Your task to perform on an android device: Go to sound settings Image 0: 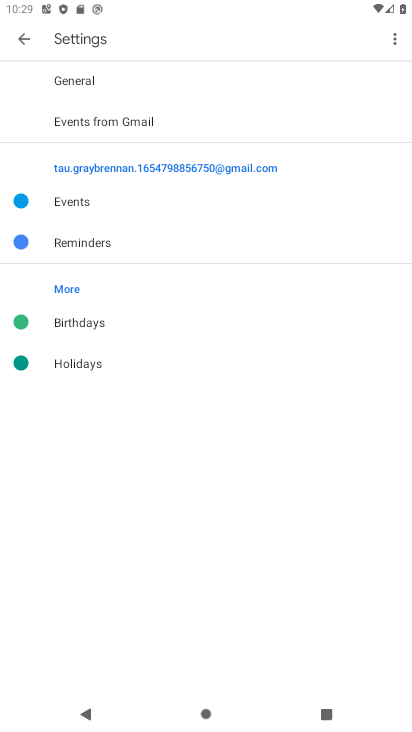
Step 0: press home button
Your task to perform on an android device: Go to sound settings Image 1: 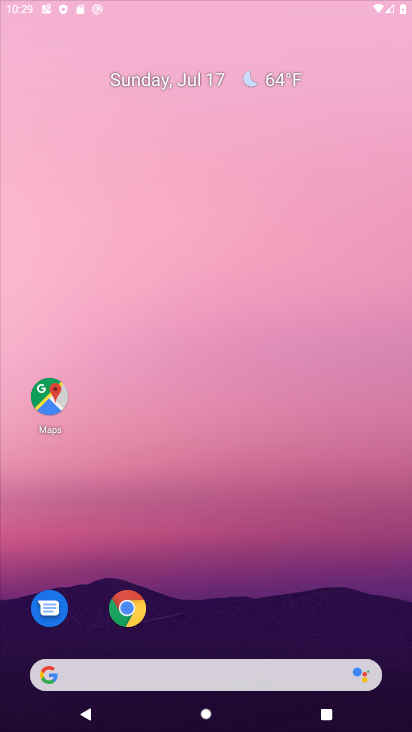
Step 1: drag from (387, 659) to (250, 48)
Your task to perform on an android device: Go to sound settings Image 2: 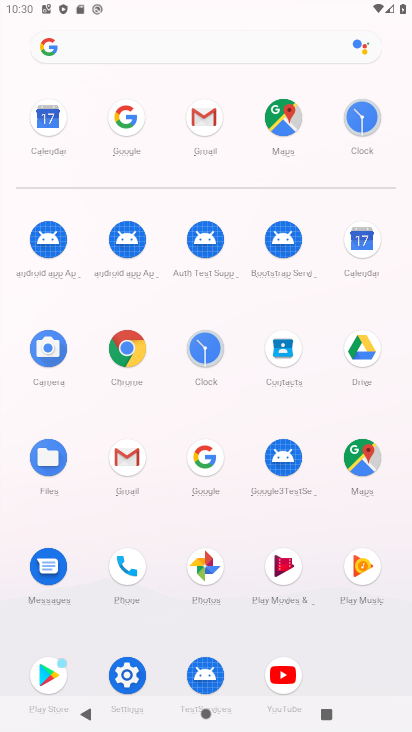
Step 2: click (136, 665)
Your task to perform on an android device: Go to sound settings Image 3: 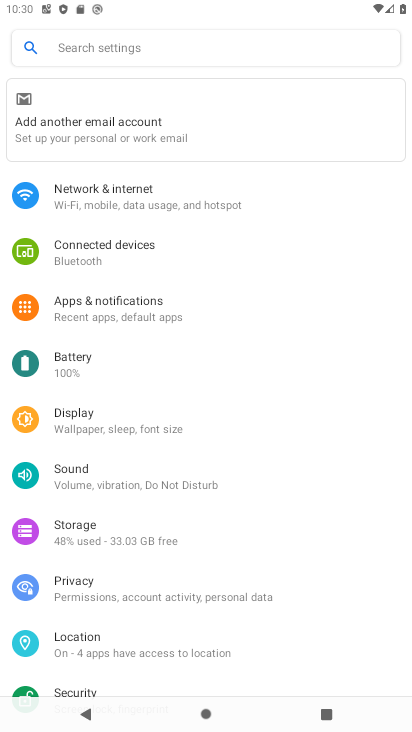
Step 3: click (68, 492)
Your task to perform on an android device: Go to sound settings Image 4: 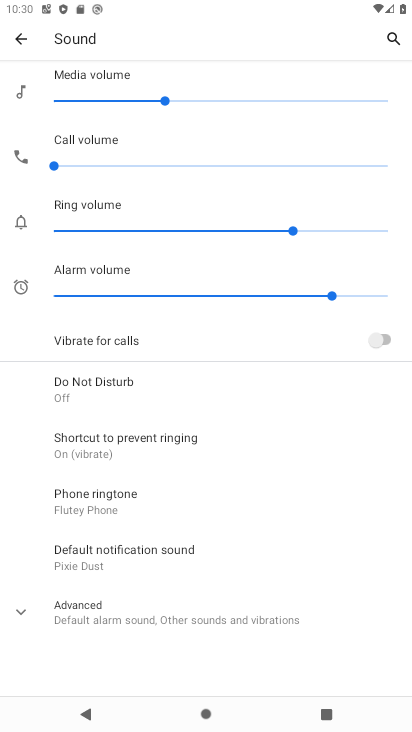
Step 4: task complete